Your task to perform on an android device: turn off priority inbox in the gmail app Image 0: 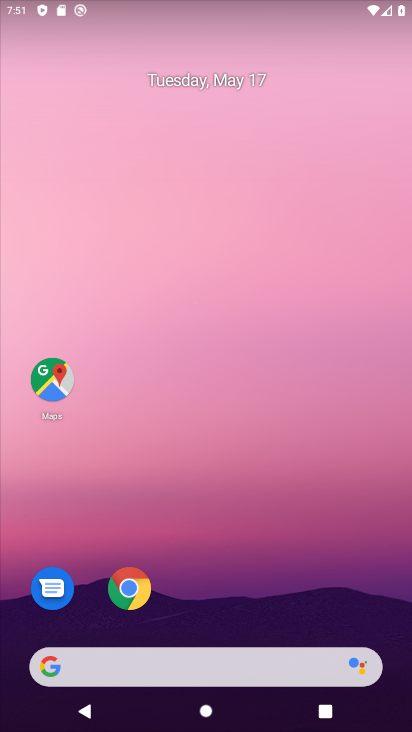
Step 0: drag from (368, 568) to (368, 419)
Your task to perform on an android device: turn off priority inbox in the gmail app Image 1: 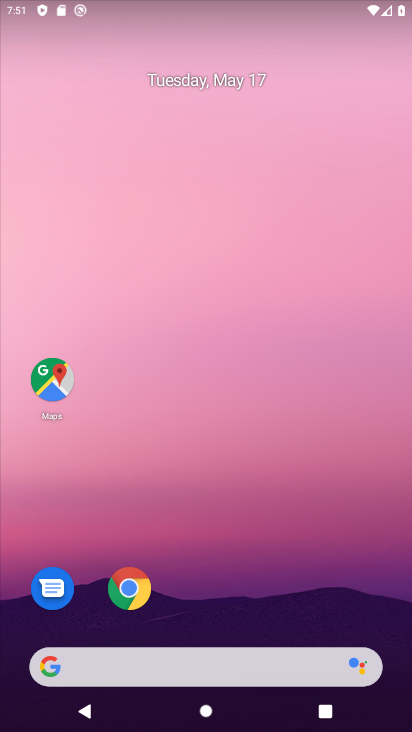
Step 1: drag from (385, 434) to (386, 294)
Your task to perform on an android device: turn off priority inbox in the gmail app Image 2: 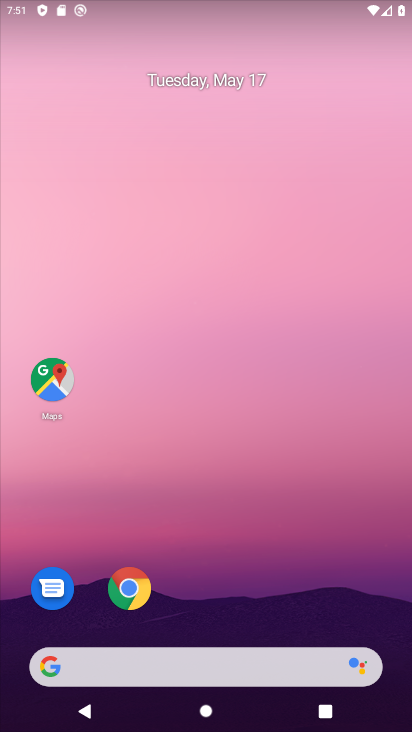
Step 2: drag from (394, 643) to (351, 226)
Your task to perform on an android device: turn off priority inbox in the gmail app Image 3: 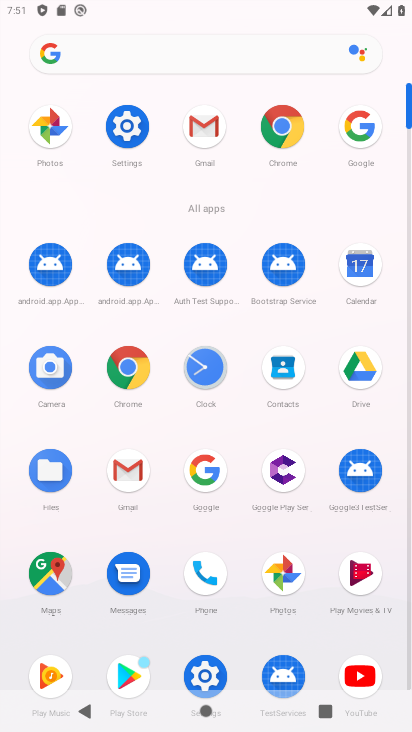
Step 3: click (199, 127)
Your task to perform on an android device: turn off priority inbox in the gmail app Image 4: 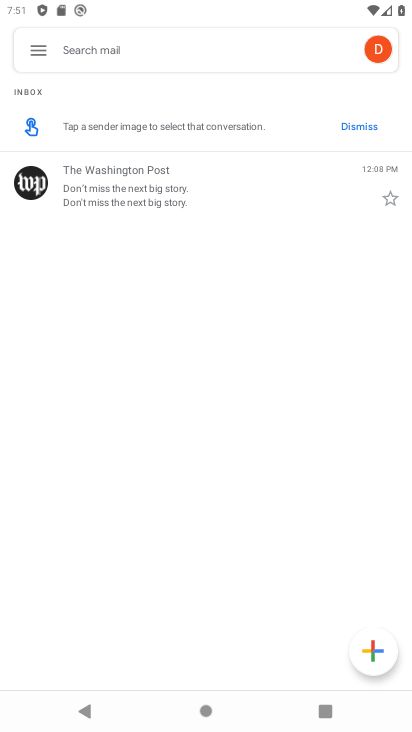
Step 4: click (34, 46)
Your task to perform on an android device: turn off priority inbox in the gmail app Image 5: 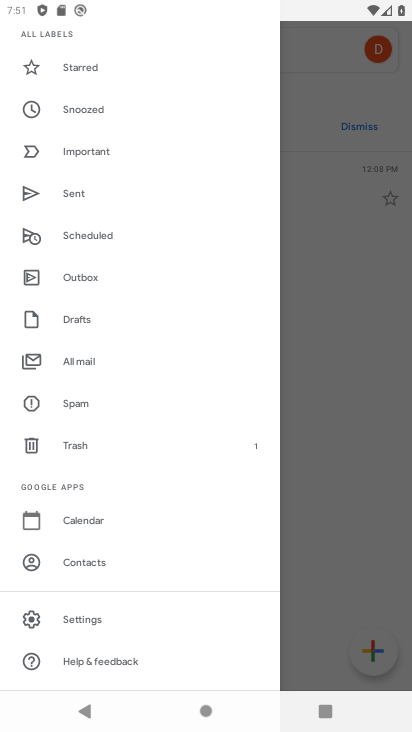
Step 5: click (65, 624)
Your task to perform on an android device: turn off priority inbox in the gmail app Image 6: 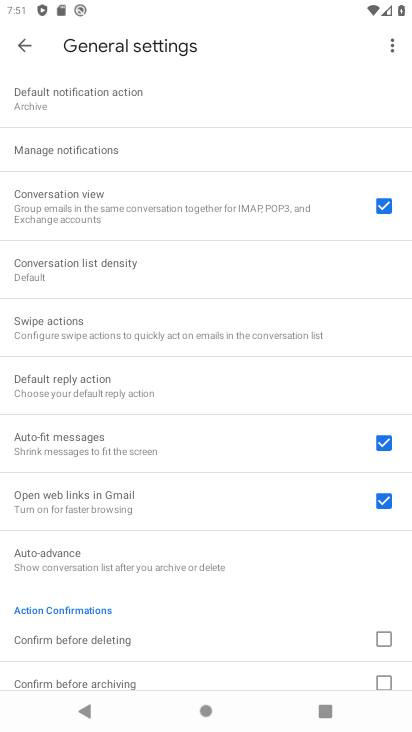
Step 6: click (20, 39)
Your task to perform on an android device: turn off priority inbox in the gmail app Image 7: 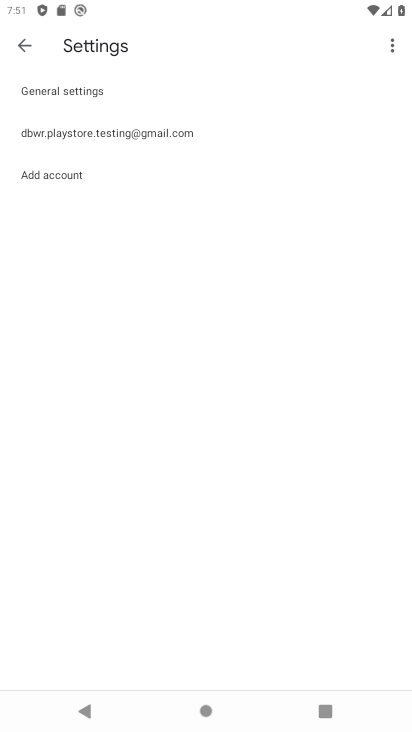
Step 7: click (46, 130)
Your task to perform on an android device: turn off priority inbox in the gmail app Image 8: 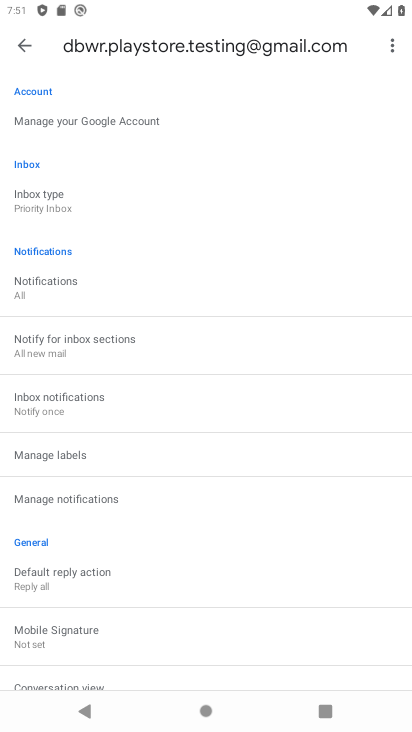
Step 8: click (28, 192)
Your task to perform on an android device: turn off priority inbox in the gmail app Image 9: 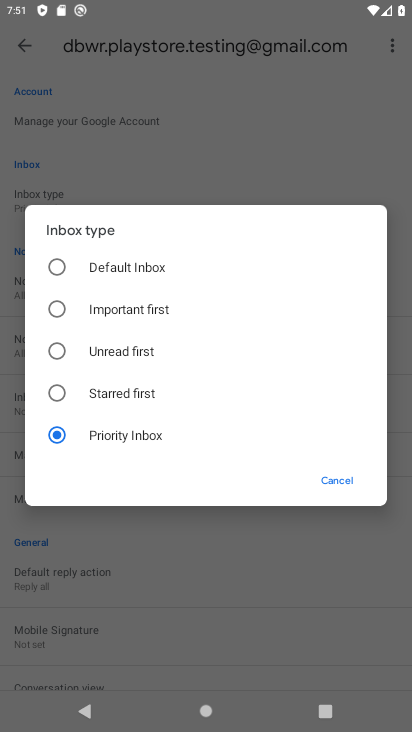
Step 9: click (58, 264)
Your task to perform on an android device: turn off priority inbox in the gmail app Image 10: 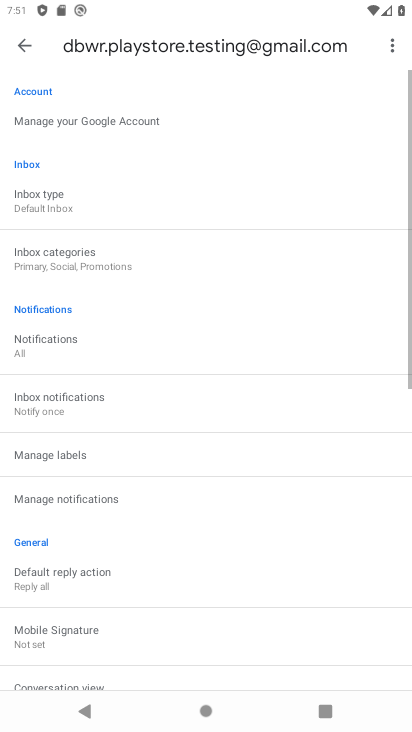
Step 10: task complete